Your task to perform on an android device: stop showing notifications on the lock screen Image 0: 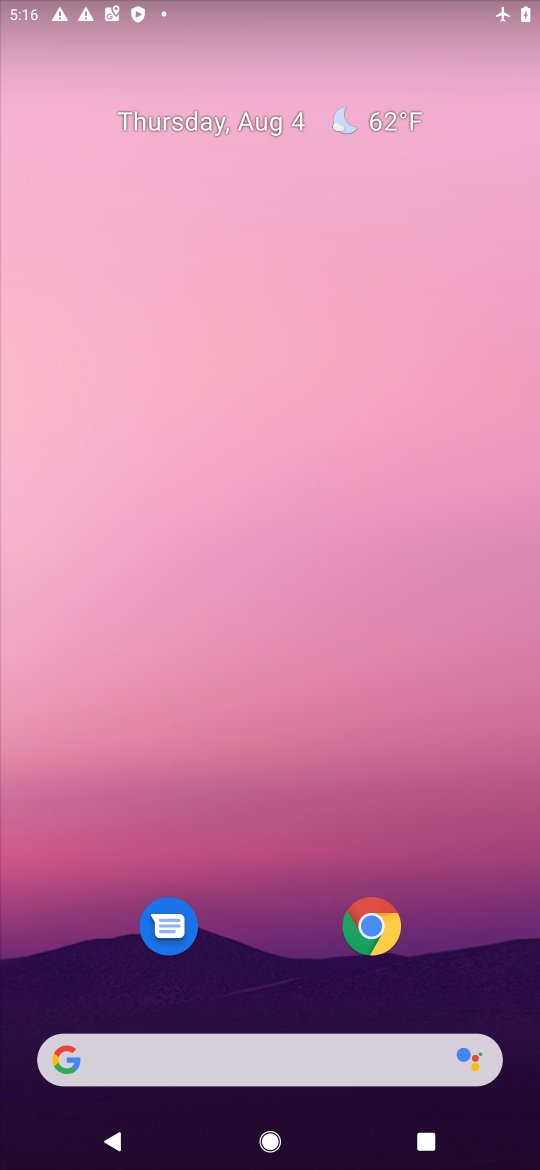
Step 0: press home button
Your task to perform on an android device: stop showing notifications on the lock screen Image 1: 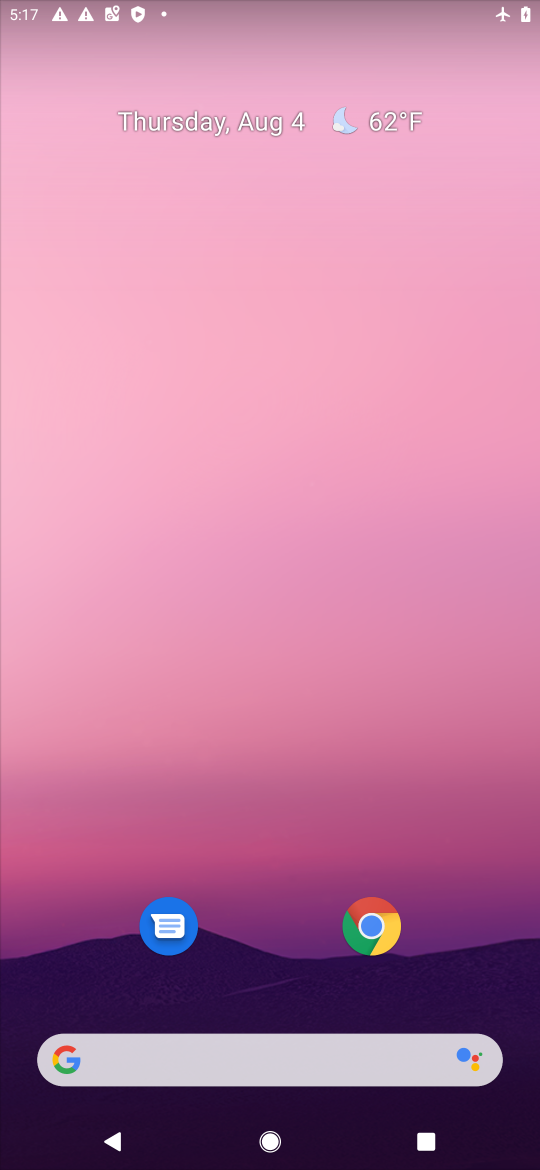
Step 1: drag from (323, 953) to (446, 148)
Your task to perform on an android device: stop showing notifications on the lock screen Image 2: 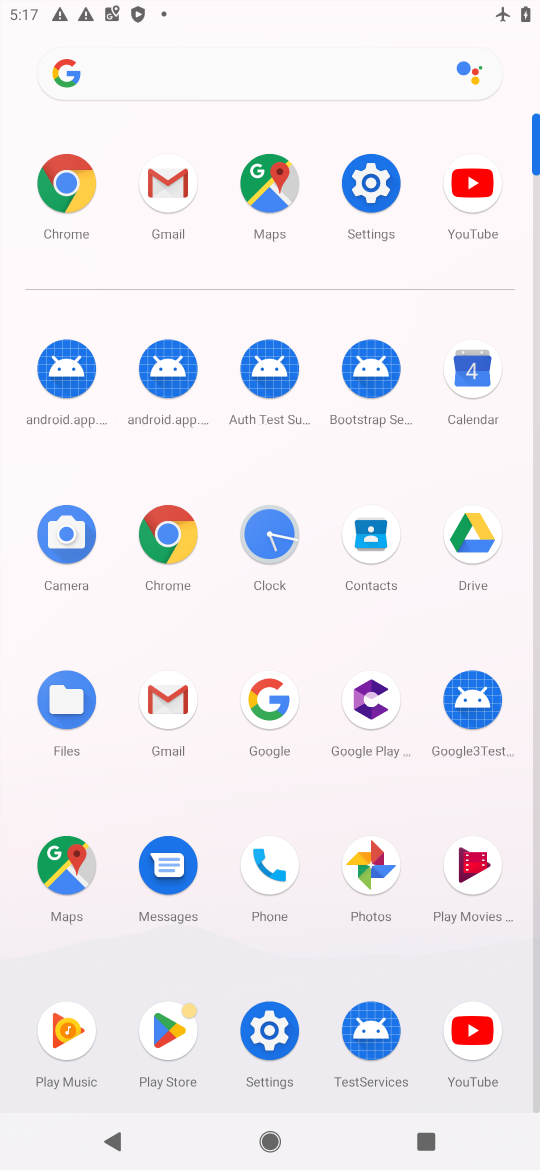
Step 2: click (358, 173)
Your task to perform on an android device: stop showing notifications on the lock screen Image 3: 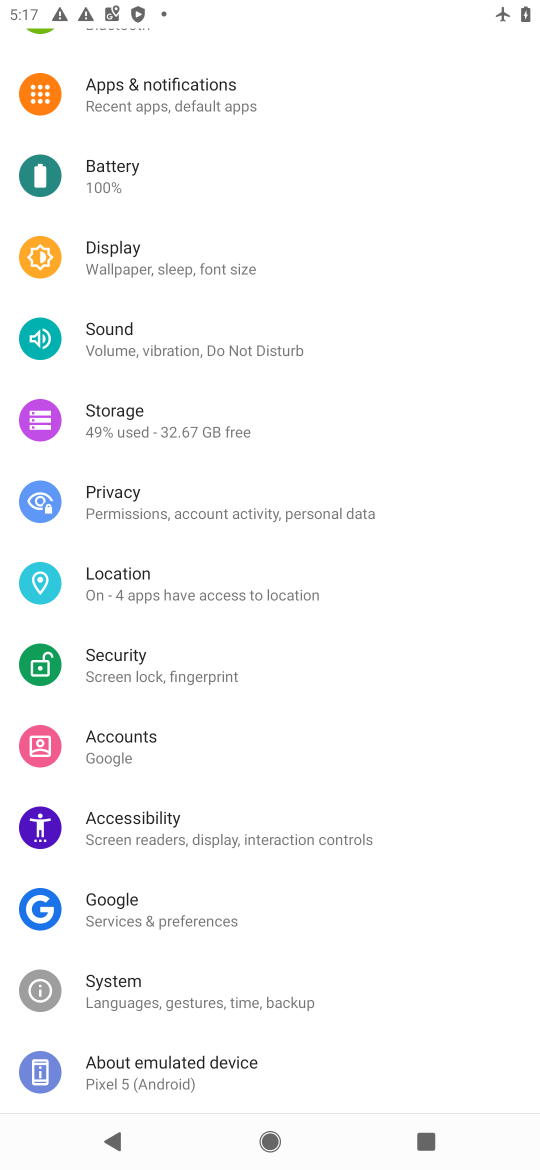
Step 3: click (164, 108)
Your task to perform on an android device: stop showing notifications on the lock screen Image 4: 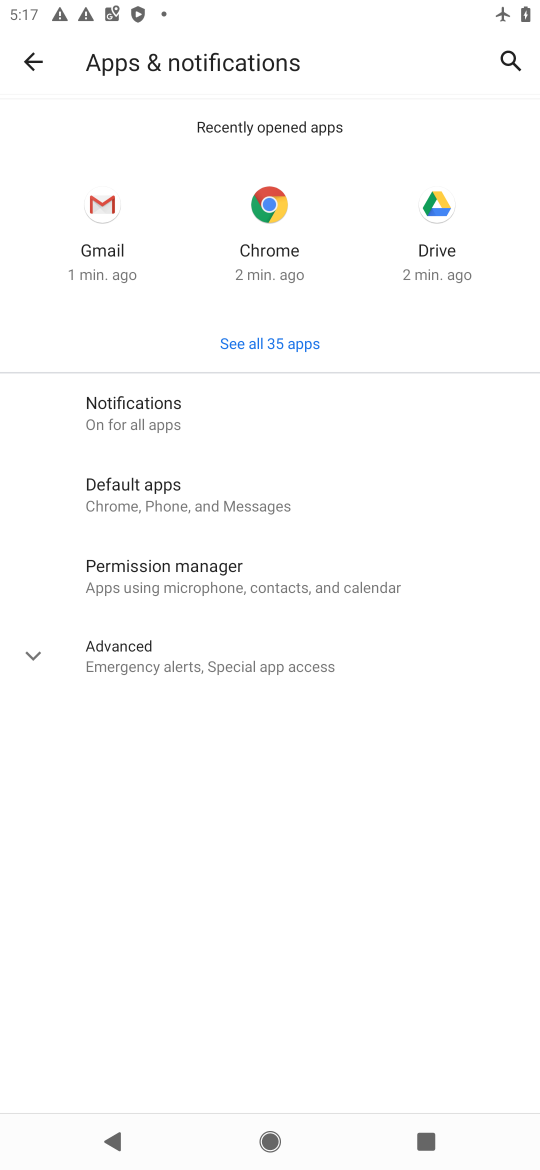
Step 4: click (152, 420)
Your task to perform on an android device: stop showing notifications on the lock screen Image 5: 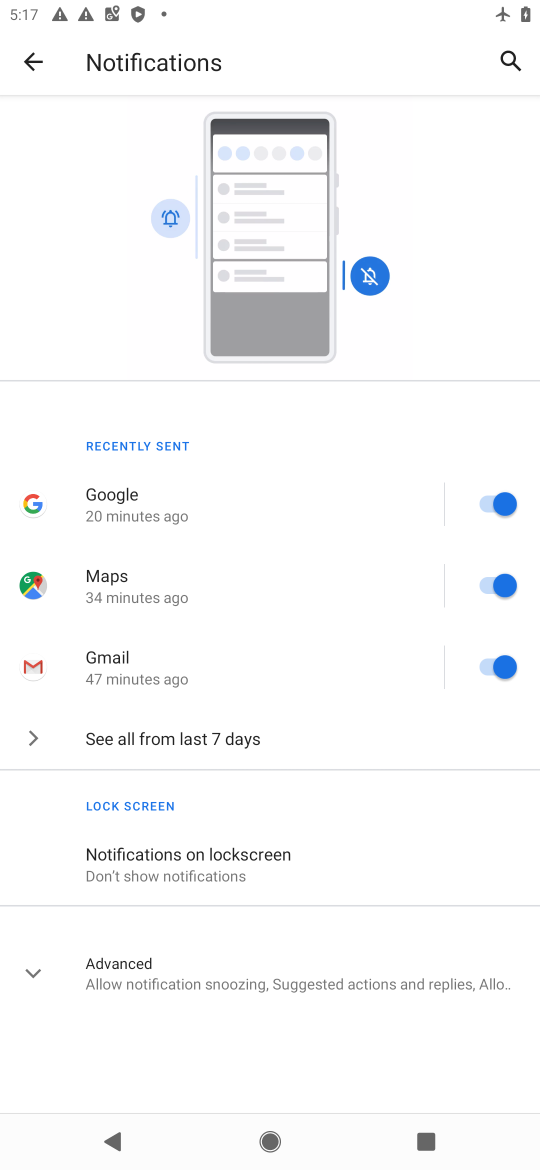
Step 5: click (161, 856)
Your task to perform on an android device: stop showing notifications on the lock screen Image 6: 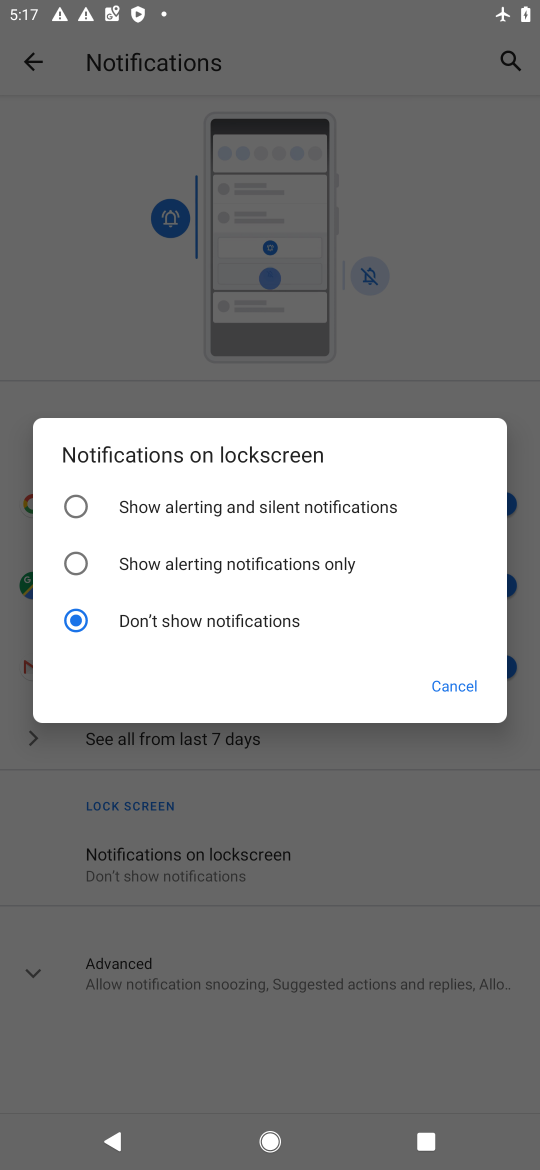
Step 6: task complete